Your task to perform on an android device: Check the weather Image 0: 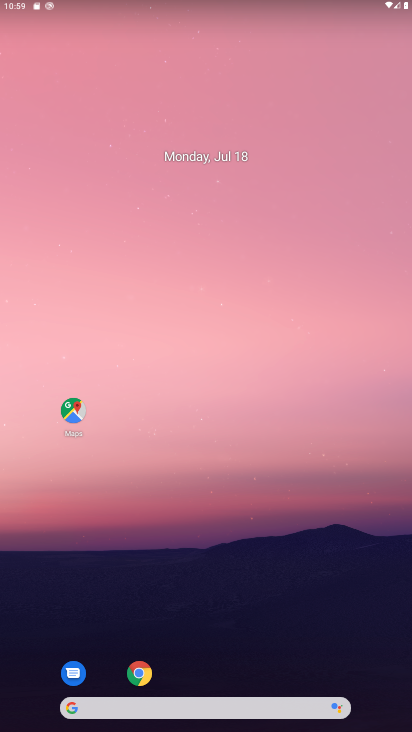
Step 0: drag from (201, 579) to (201, 73)
Your task to perform on an android device: Check the weather Image 1: 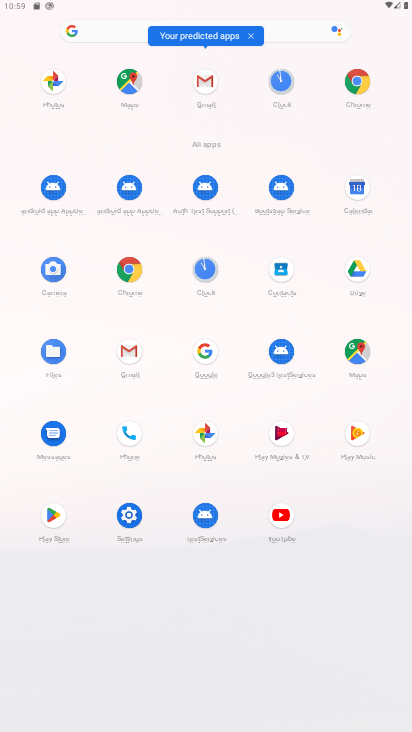
Step 1: click (209, 345)
Your task to perform on an android device: Check the weather Image 2: 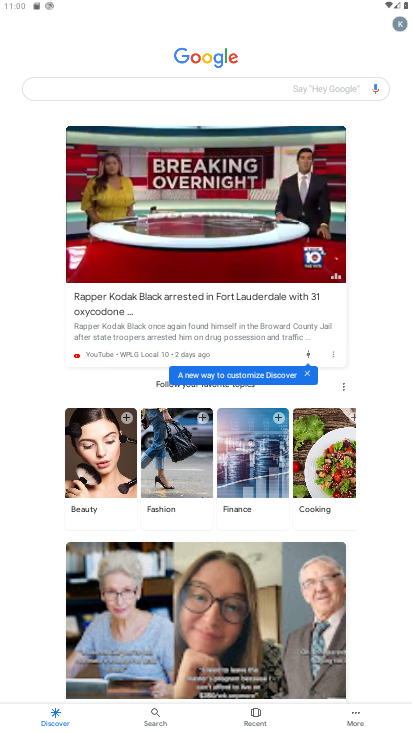
Step 2: click (126, 91)
Your task to perform on an android device: Check the weather Image 3: 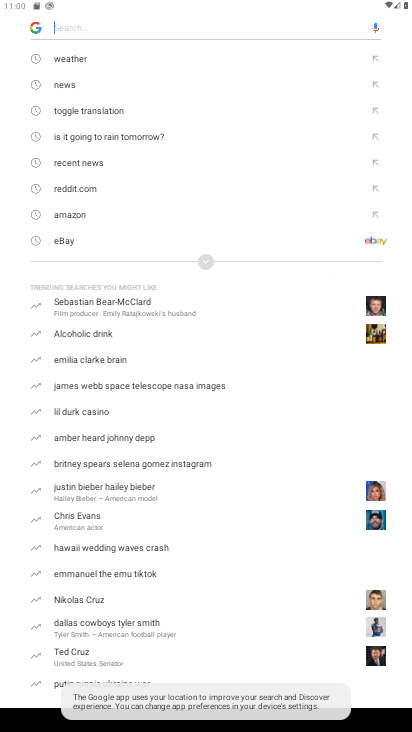
Step 3: click (105, 62)
Your task to perform on an android device: Check the weather Image 4: 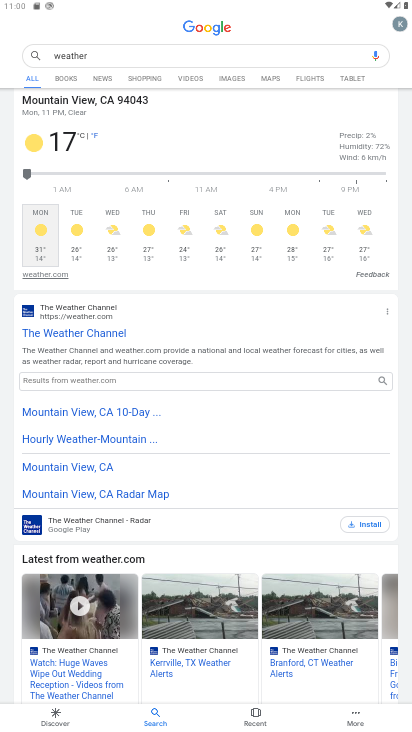
Step 4: task complete